Your task to perform on an android device: Go to Google Image 0: 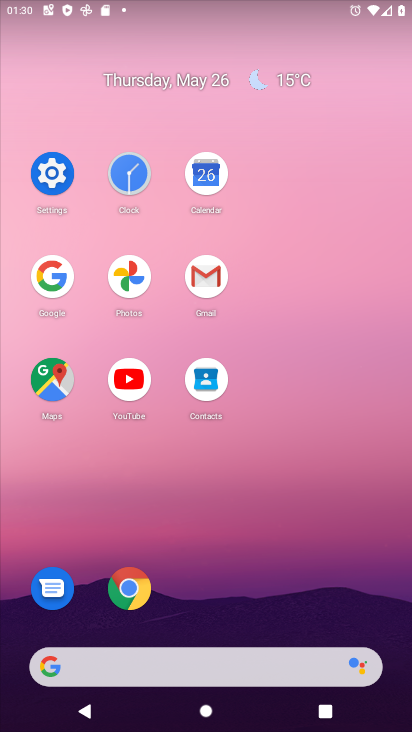
Step 0: click (61, 286)
Your task to perform on an android device: Go to Google Image 1: 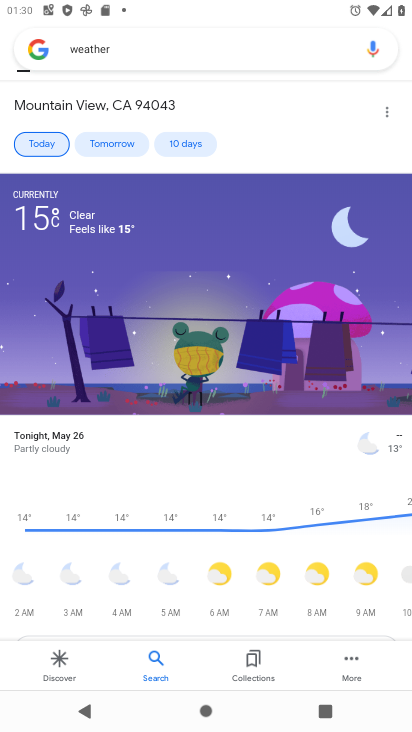
Step 1: task complete